Your task to perform on an android device: Do I have any events today? Image 0: 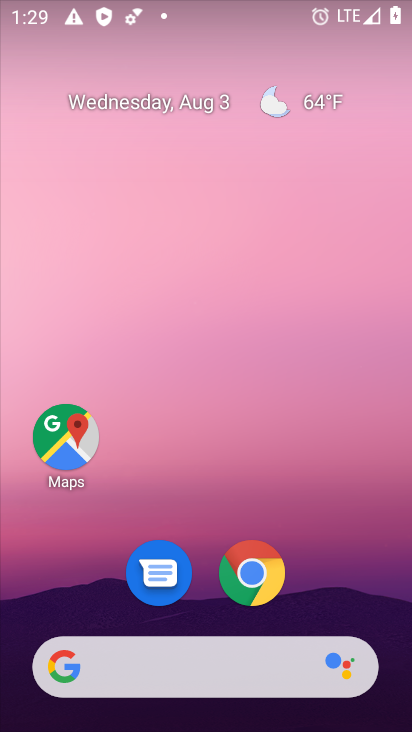
Step 0: click (196, 187)
Your task to perform on an android device: Do I have any events today? Image 1: 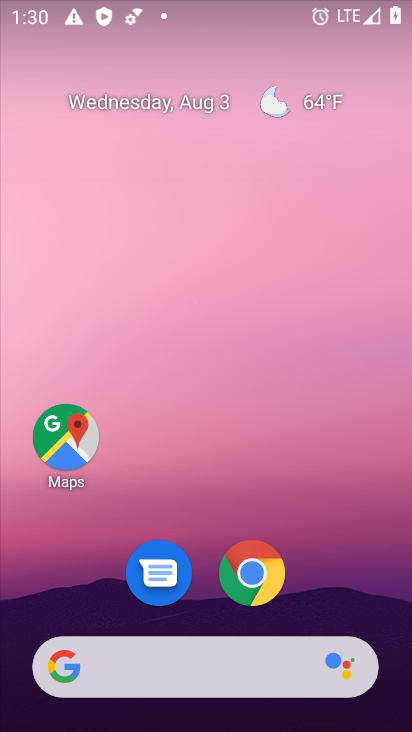
Step 1: drag from (123, 535) to (99, 45)
Your task to perform on an android device: Do I have any events today? Image 2: 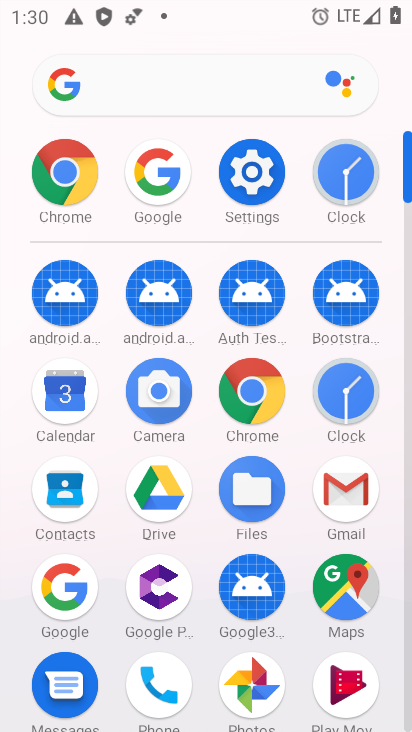
Step 2: drag from (221, 521) to (327, 160)
Your task to perform on an android device: Do I have any events today? Image 3: 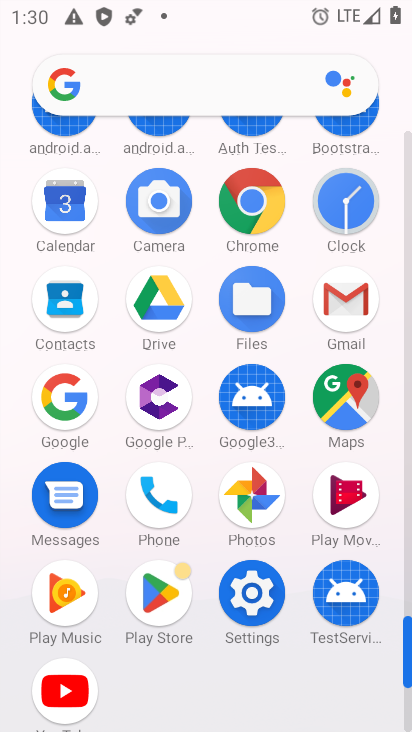
Step 3: click (58, 204)
Your task to perform on an android device: Do I have any events today? Image 4: 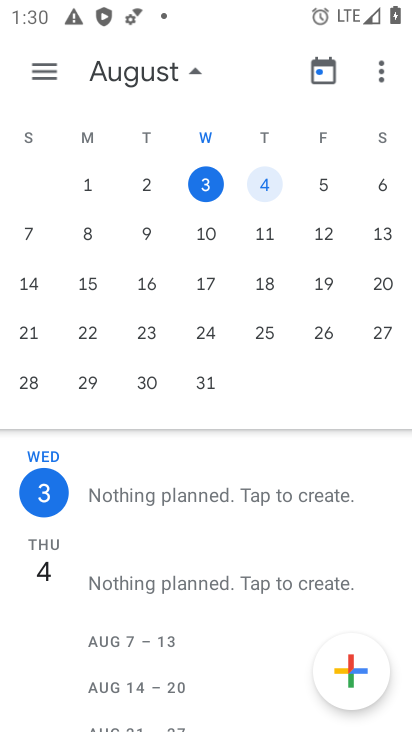
Step 4: drag from (122, 237) to (409, 206)
Your task to perform on an android device: Do I have any events today? Image 5: 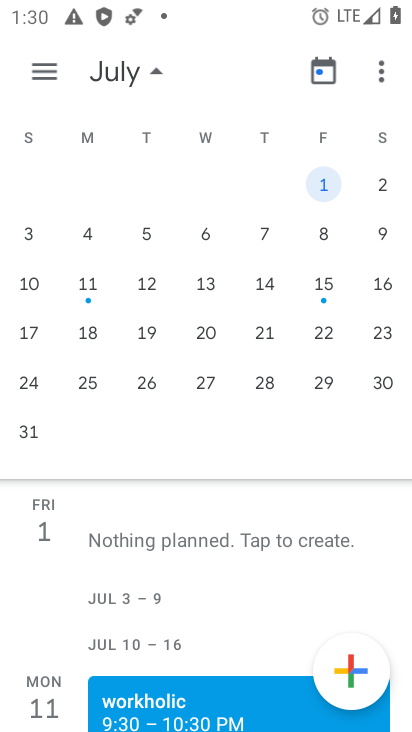
Step 5: drag from (279, 243) to (6, 277)
Your task to perform on an android device: Do I have any events today? Image 6: 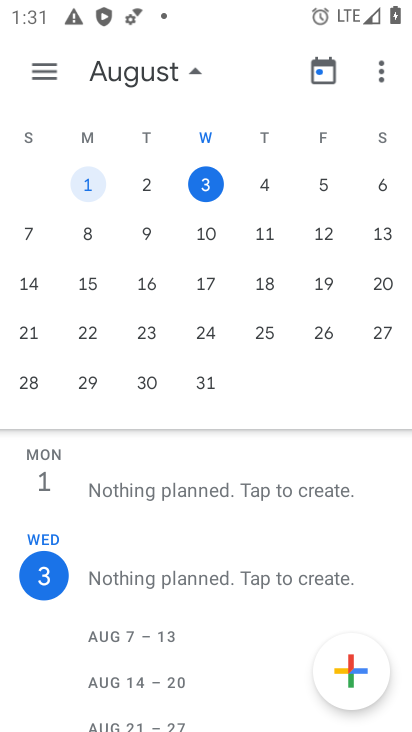
Step 6: click (205, 182)
Your task to perform on an android device: Do I have any events today? Image 7: 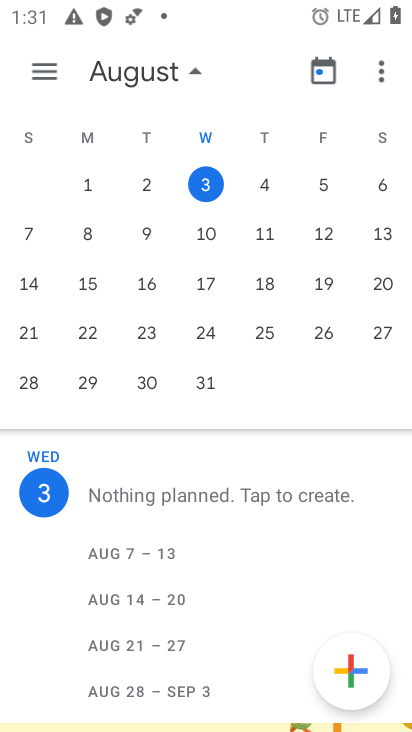
Step 7: click (271, 189)
Your task to perform on an android device: Do I have any events today? Image 8: 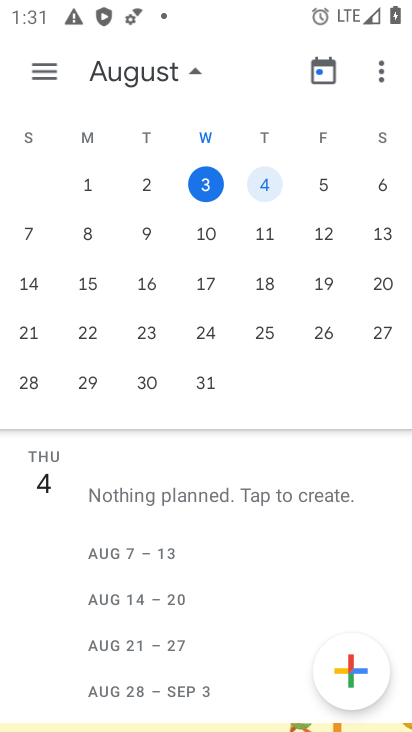
Step 8: task complete